Your task to perform on an android device: Open Google Image 0: 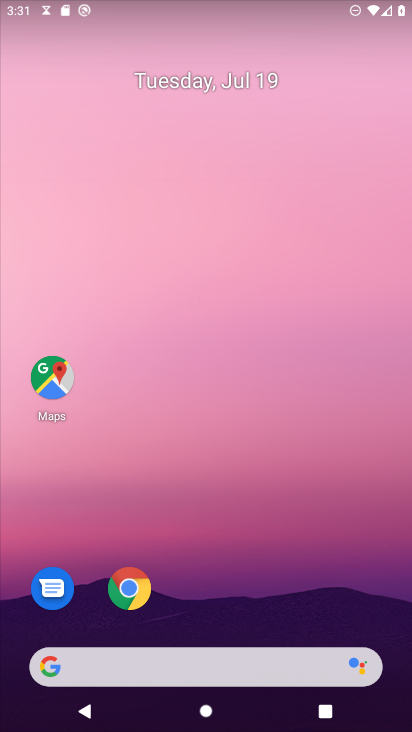
Step 0: click (150, 671)
Your task to perform on an android device: Open Google Image 1: 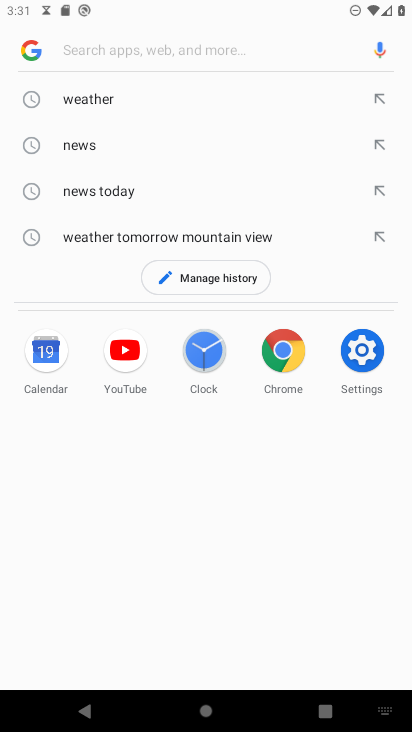
Step 1: task complete